Your task to perform on an android device: toggle notification dots Image 0: 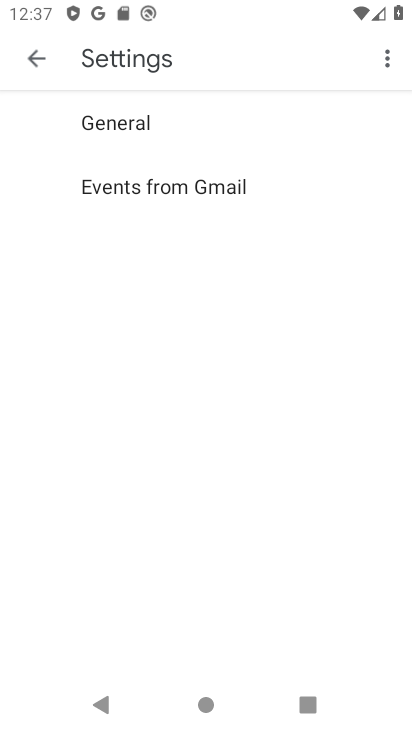
Step 0: press back button
Your task to perform on an android device: toggle notification dots Image 1: 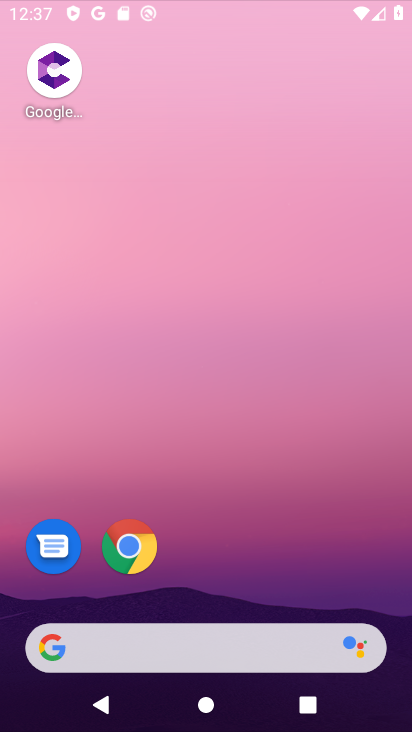
Step 1: click (26, 59)
Your task to perform on an android device: toggle notification dots Image 2: 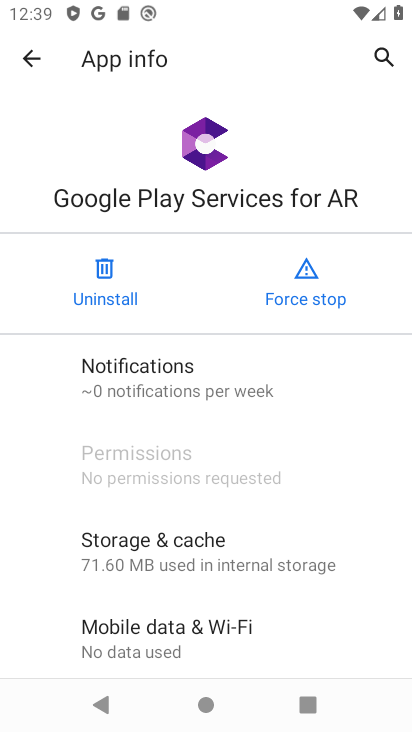
Step 2: click (25, 53)
Your task to perform on an android device: toggle notification dots Image 3: 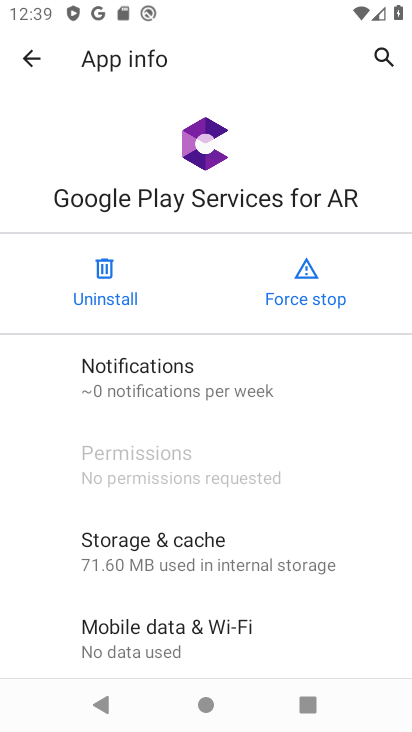
Step 3: click (26, 52)
Your task to perform on an android device: toggle notification dots Image 4: 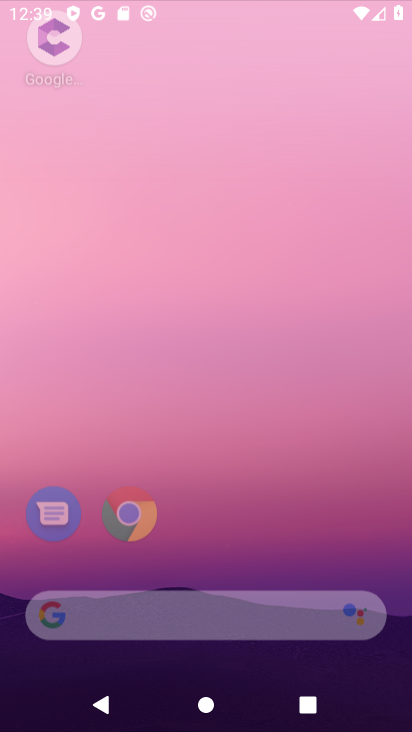
Step 4: click (26, 52)
Your task to perform on an android device: toggle notification dots Image 5: 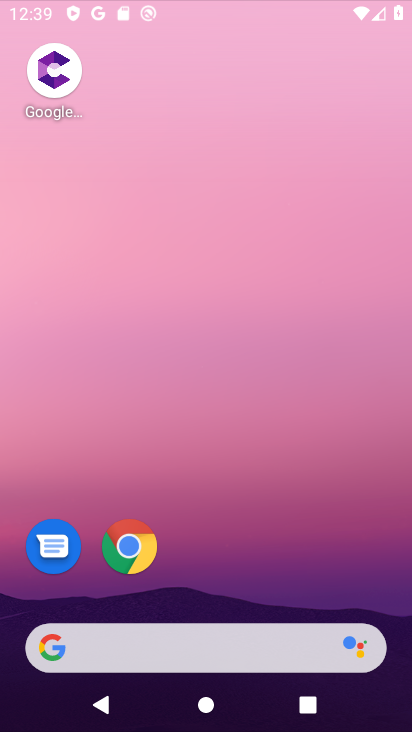
Step 5: click (28, 52)
Your task to perform on an android device: toggle notification dots Image 6: 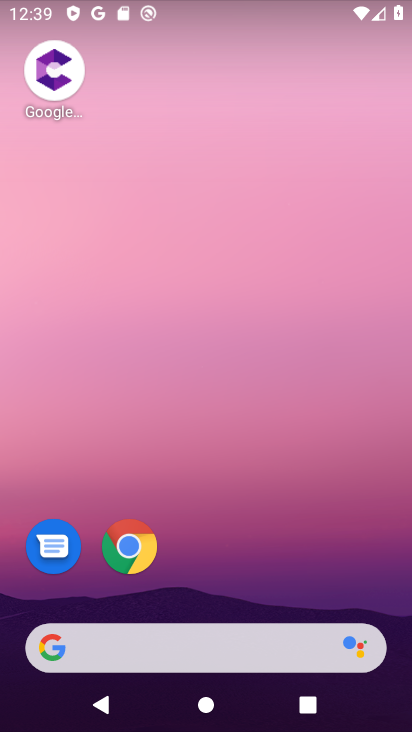
Step 6: drag from (249, 687) to (242, 157)
Your task to perform on an android device: toggle notification dots Image 7: 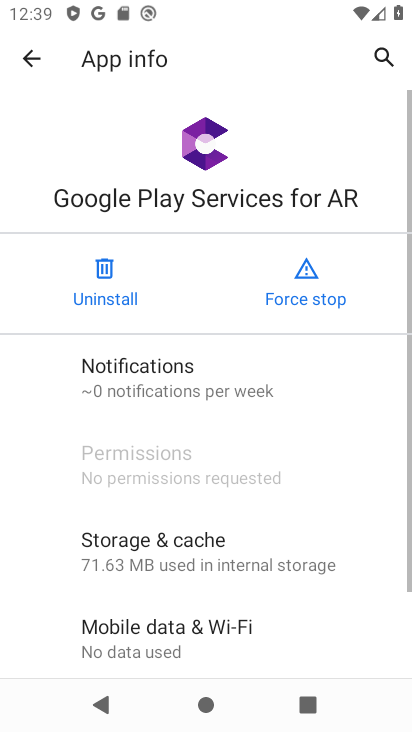
Step 7: drag from (284, 671) to (297, 420)
Your task to perform on an android device: toggle notification dots Image 8: 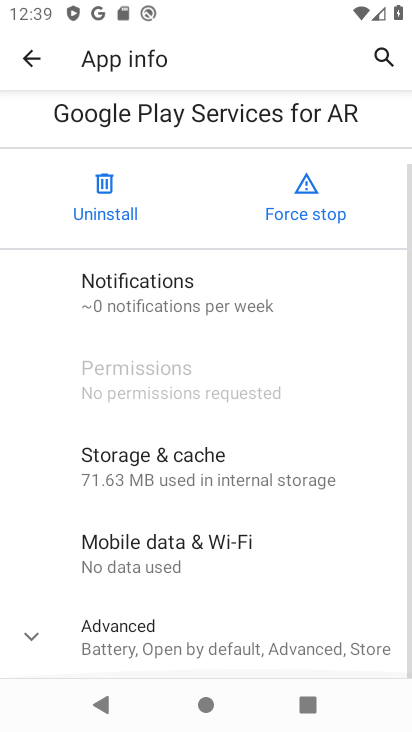
Step 8: press back button
Your task to perform on an android device: toggle notification dots Image 9: 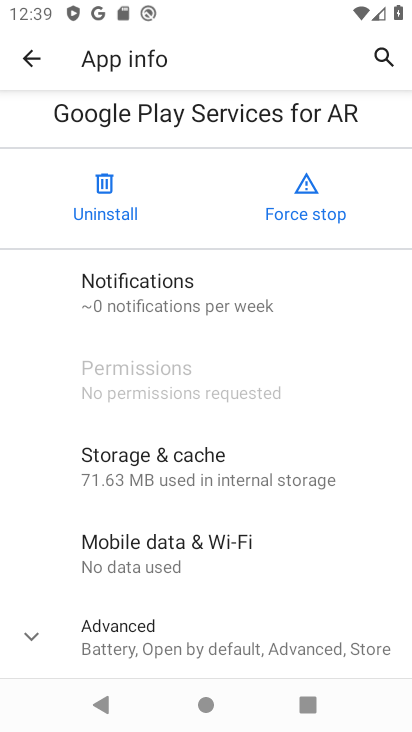
Step 9: press back button
Your task to perform on an android device: toggle notification dots Image 10: 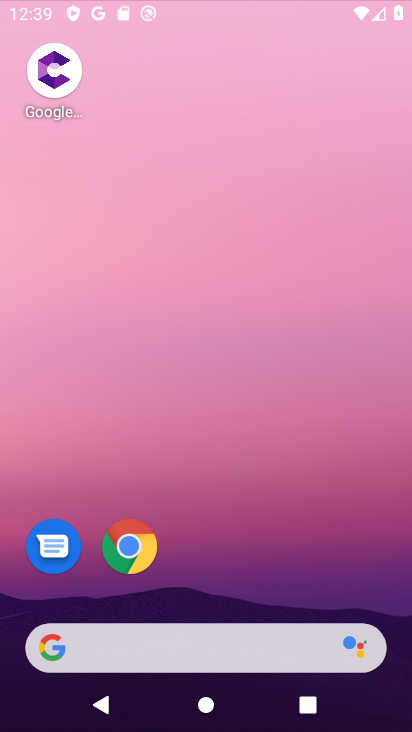
Step 10: press back button
Your task to perform on an android device: toggle notification dots Image 11: 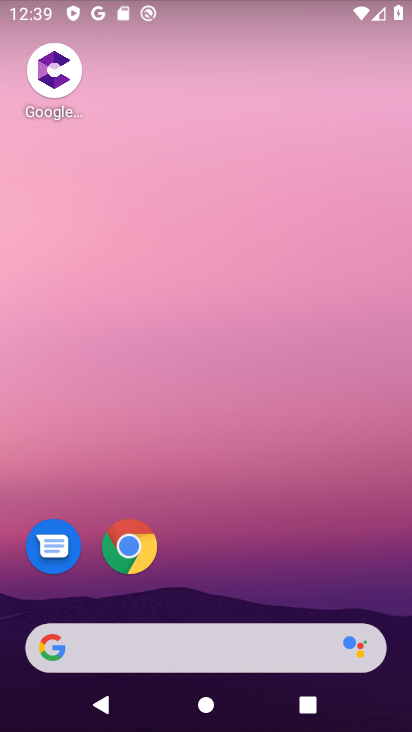
Step 11: press back button
Your task to perform on an android device: toggle notification dots Image 12: 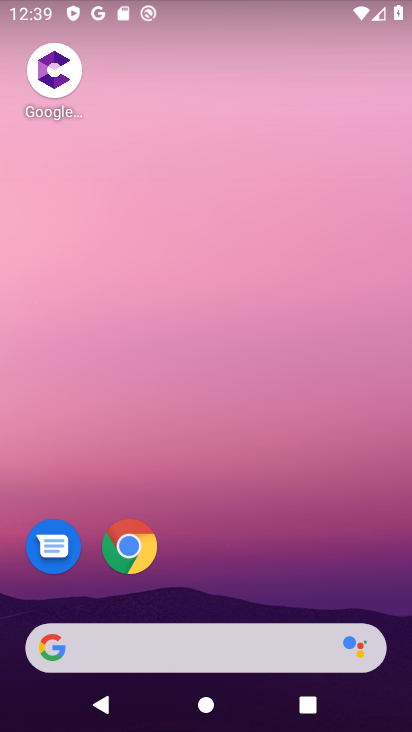
Step 12: drag from (260, 684) to (212, 155)
Your task to perform on an android device: toggle notification dots Image 13: 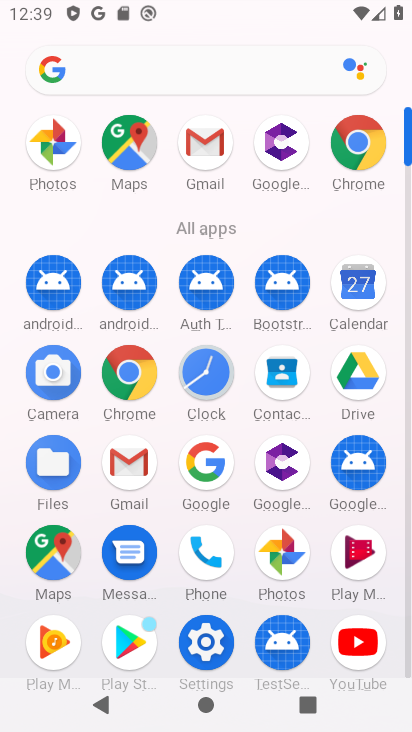
Step 13: click (210, 638)
Your task to perform on an android device: toggle notification dots Image 14: 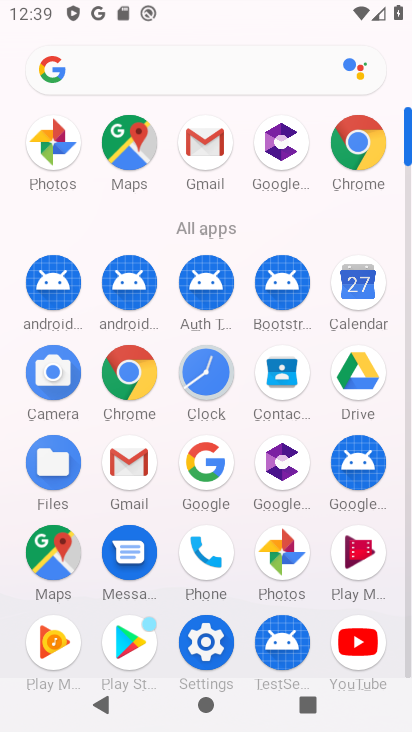
Step 14: click (210, 638)
Your task to perform on an android device: toggle notification dots Image 15: 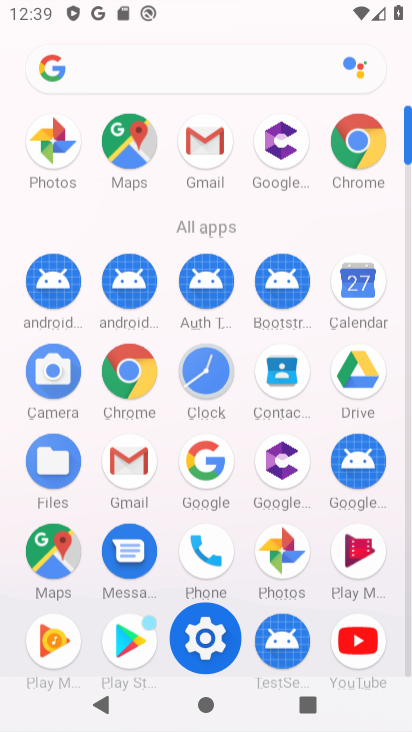
Step 15: click (214, 644)
Your task to perform on an android device: toggle notification dots Image 16: 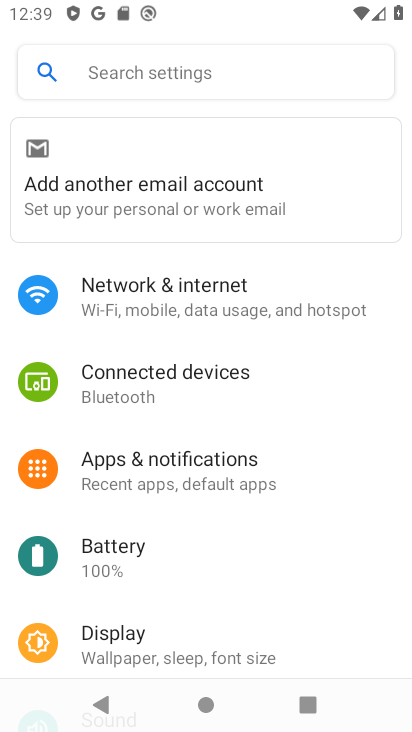
Step 16: click (152, 477)
Your task to perform on an android device: toggle notification dots Image 17: 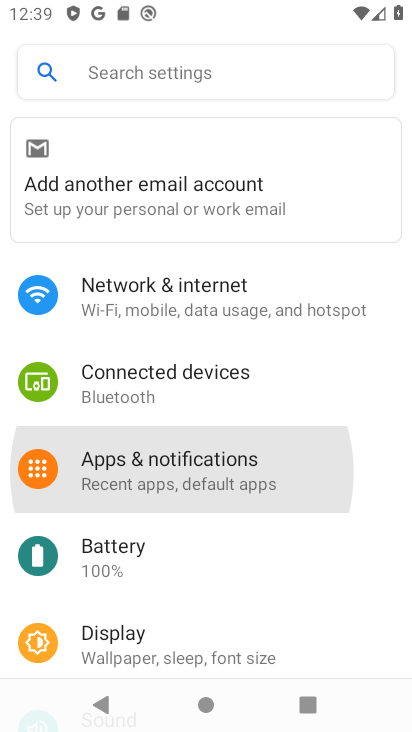
Step 17: click (152, 477)
Your task to perform on an android device: toggle notification dots Image 18: 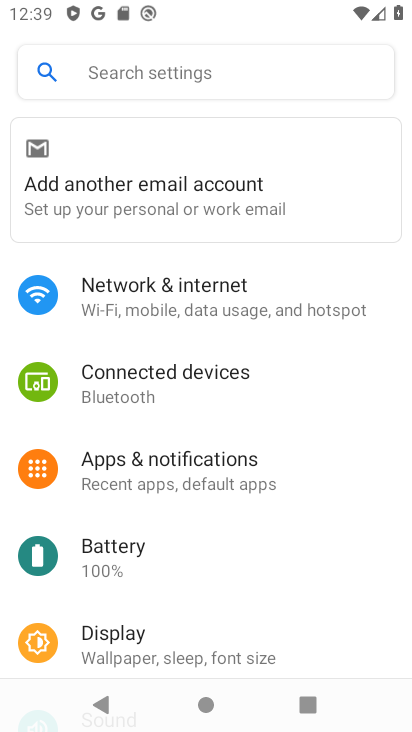
Step 18: click (156, 478)
Your task to perform on an android device: toggle notification dots Image 19: 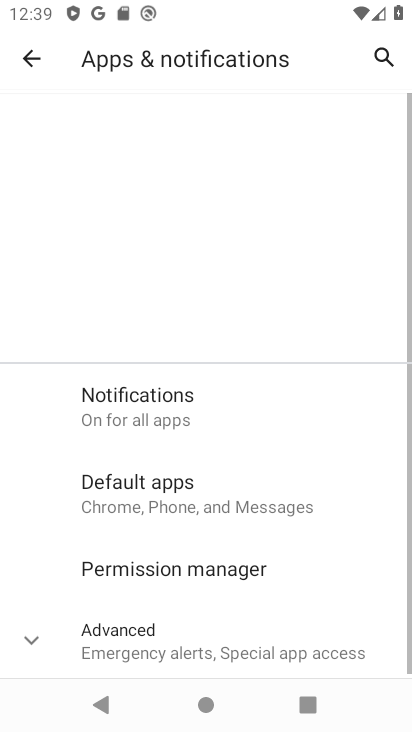
Step 19: click (168, 463)
Your task to perform on an android device: toggle notification dots Image 20: 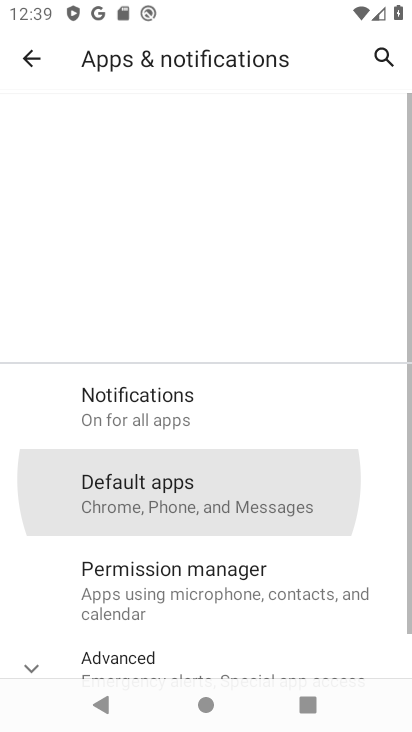
Step 20: click (168, 463)
Your task to perform on an android device: toggle notification dots Image 21: 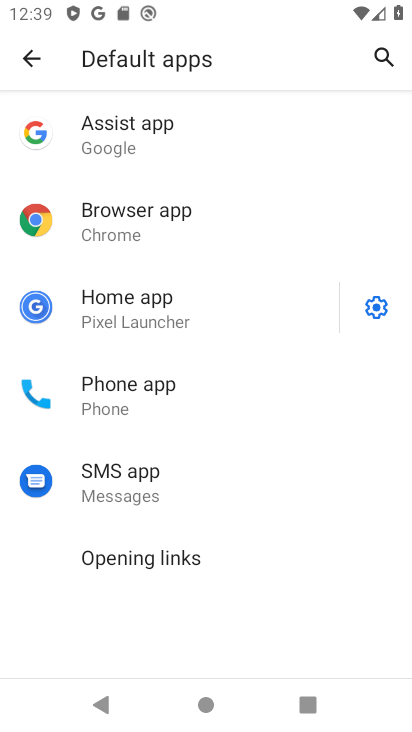
Step 21: click (93, 397)
Your task to perform on an android device: toggle notification dots Image 22: 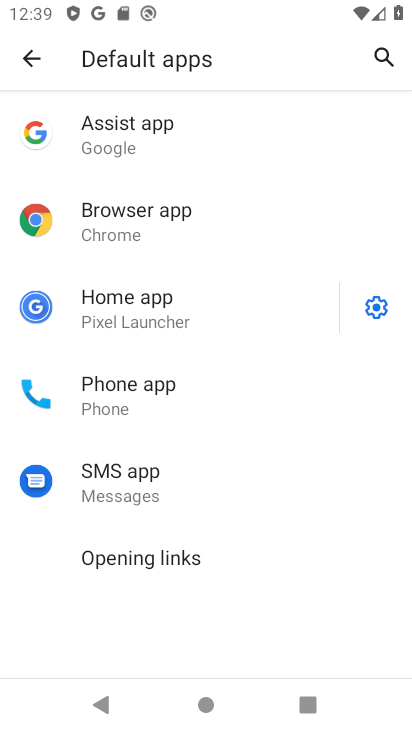
Step 22: click (104, 401)
Your task to perform on an android device: toggle notification dots Image 23: 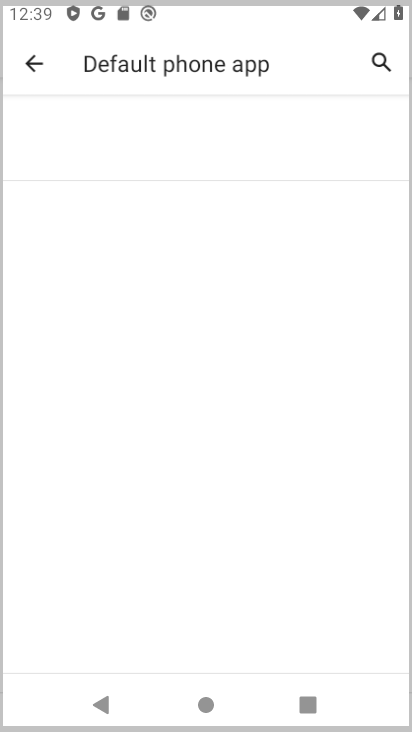
Step 23: click (129, 411)
Your task to perform on an android device: toggle notification dots Image 24: 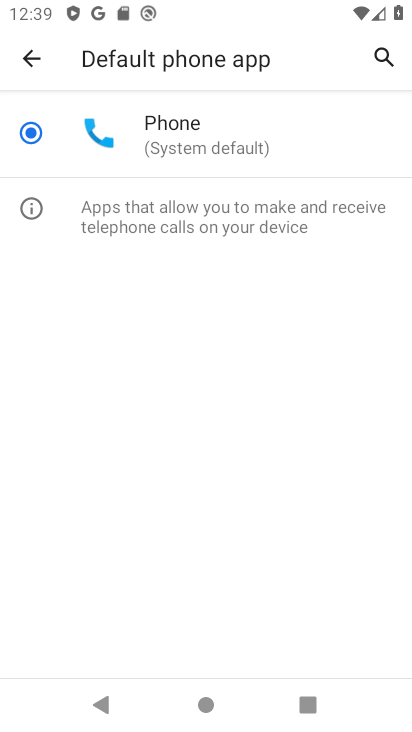
Step 24: click (19, 51)
Your task to perform on an android device: toggle notification dots Image 25: 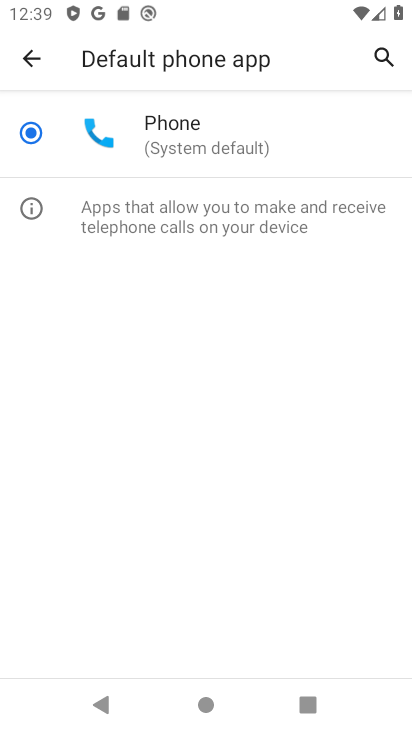
Step 25: click (27, 58)
Your task to perform on an android device: toggle notification dots Image 26: 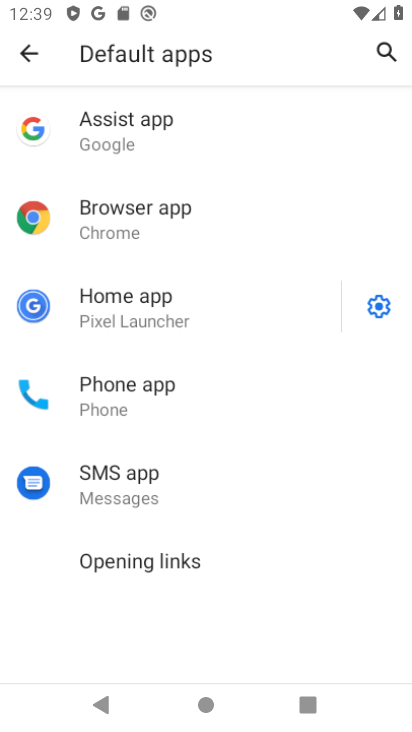
Step 26: click (28, 58)
Your task to perform on an android device: toggle notification dots Image 27: 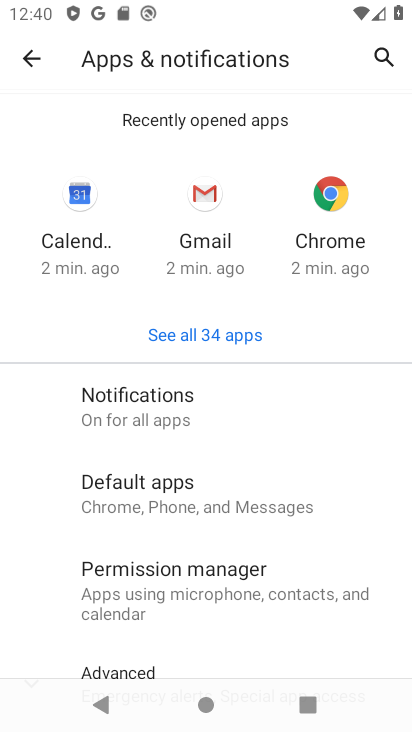
Step 27: drag from (160, 448) to (128, 200)
Your task to perform on an android device: toggle notification dots Image 28: 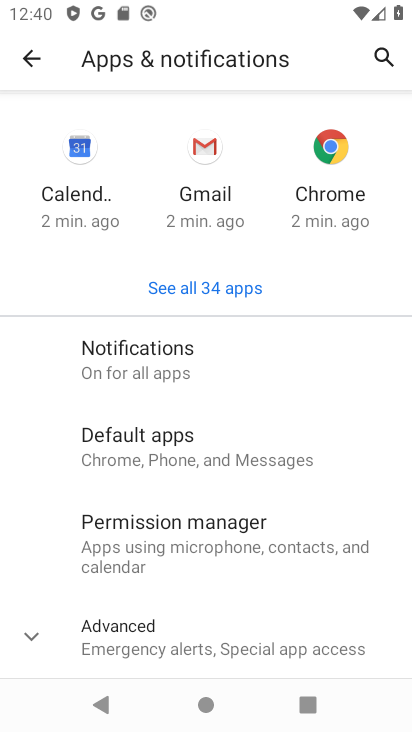
Step 28: click (115, 364)
Your task to perform on an android device: toggle notification dots Image 29: 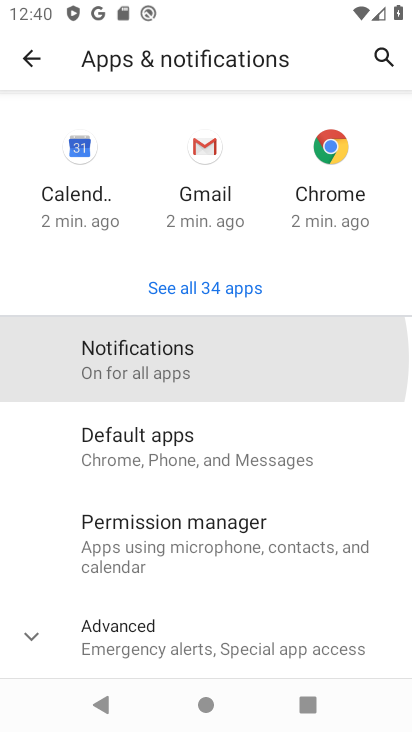
Step 29: click (115, 364)
Your task to perform on an android device: toggle notification dots Image 30: 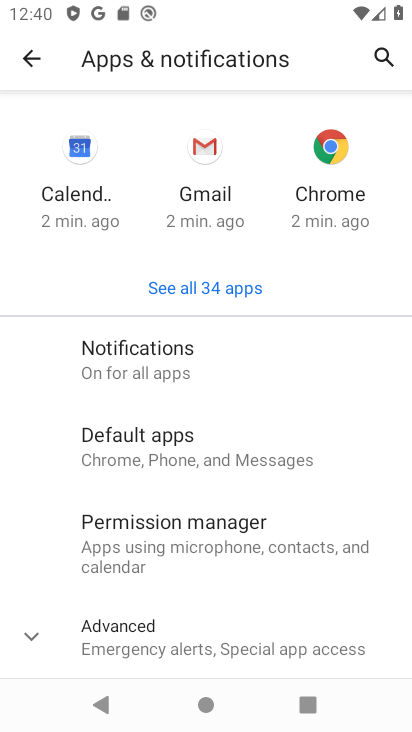
Step 30: click (116, 364)
Your task to perform on an android device: toggle notification dots Image 31: 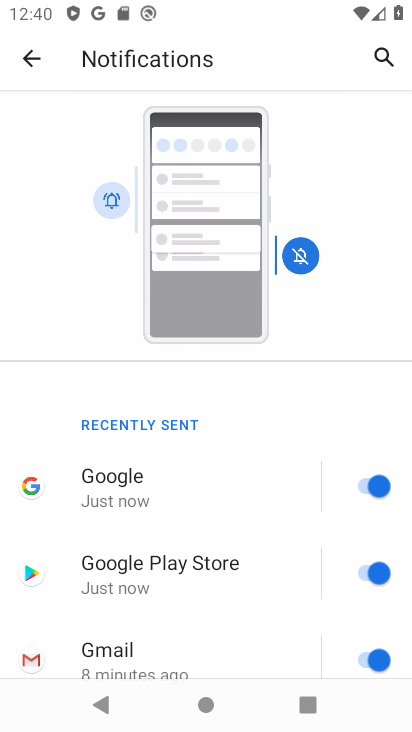
Step 31: click (160, 301)
Your task to perform on an android device: toggle notification dots Image 32: 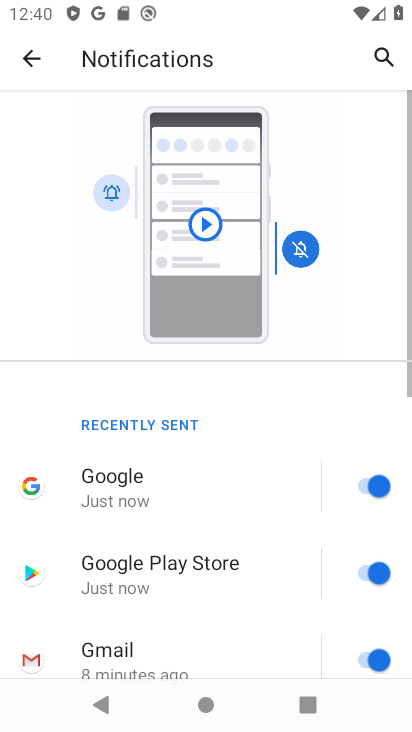
Step 32: click (161, 138)
Your task to perform on an android device: toggle notification dots Image 33: 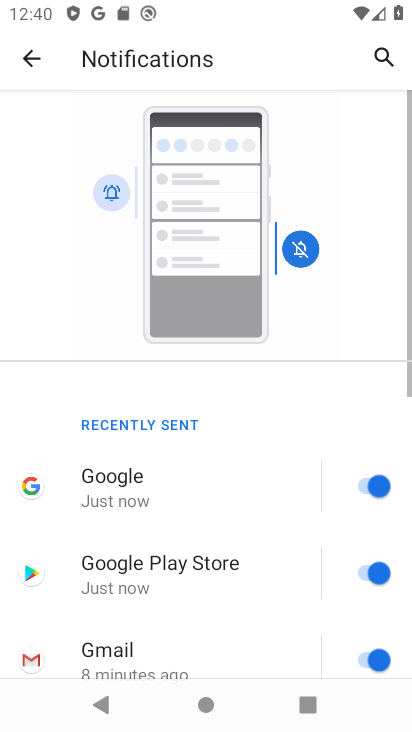
Step 33: drag from (161, 374) to (161, 286)
Your task to perform on an android device: toggle notification dots Image 34: 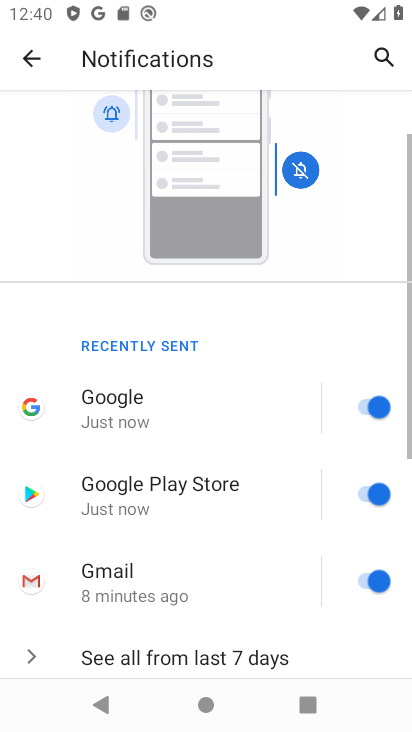
Step 34: click (139, 127)
Your task to perform on an android device: toggle notification dots Image 35: 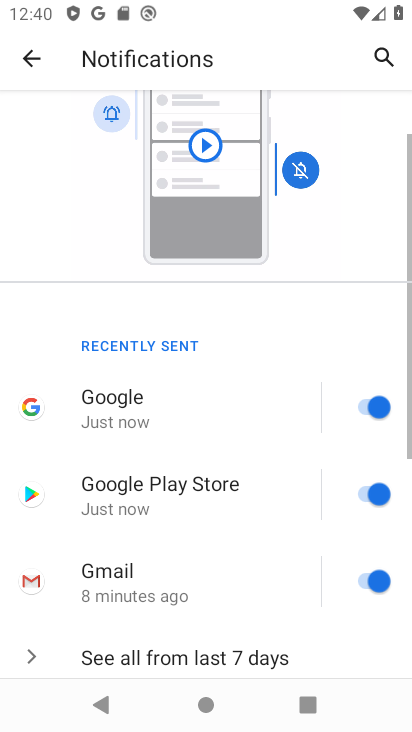
Step 35: drag from (142, 357) to (142, 86)
Your task to perform on an android device: toggle notification dots Image 36: 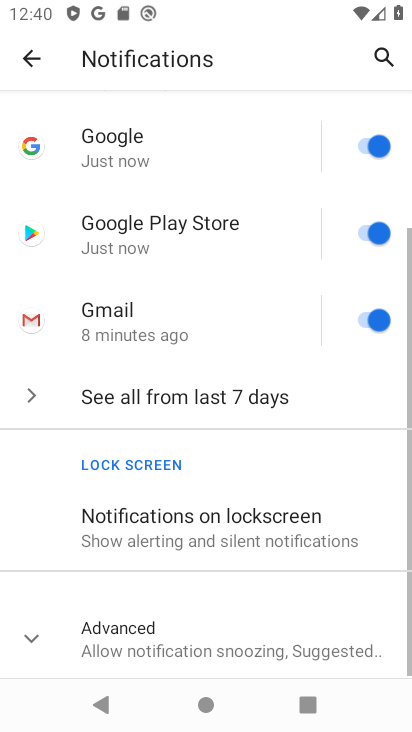
Step 36: drag from (120, 376) to (157, 82)
Your task to perform on an android device: toggle notification dots Image 37: 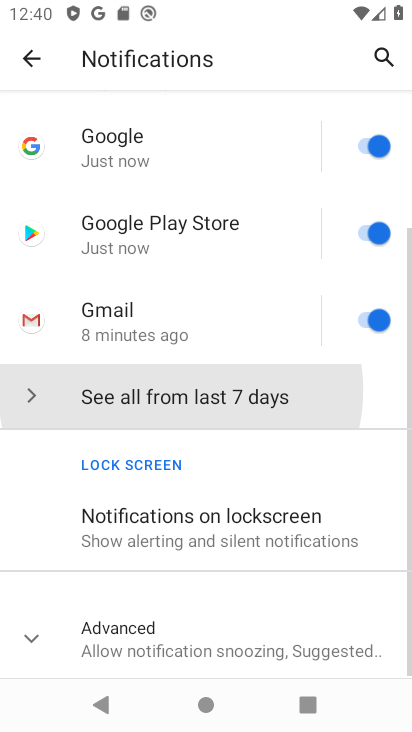
Step 37: drag from (158, 578) to (131, 244)
Your task to perform on an android device: toggle notification dots Image 38: 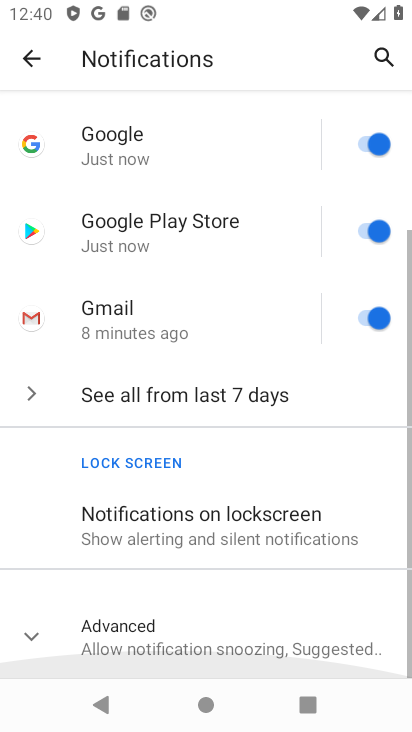
Step 38: drag from (179, 567) to (170, 423)
Your task to perform on an android device: toggle notification dots Image 39: 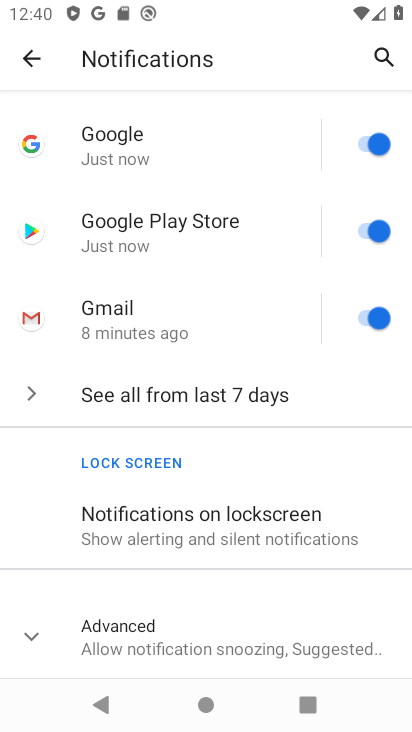
Step 39: drag from (182, 586) to (140, 247)
Your task to perform on an android device: toggle notification dots Image 40: 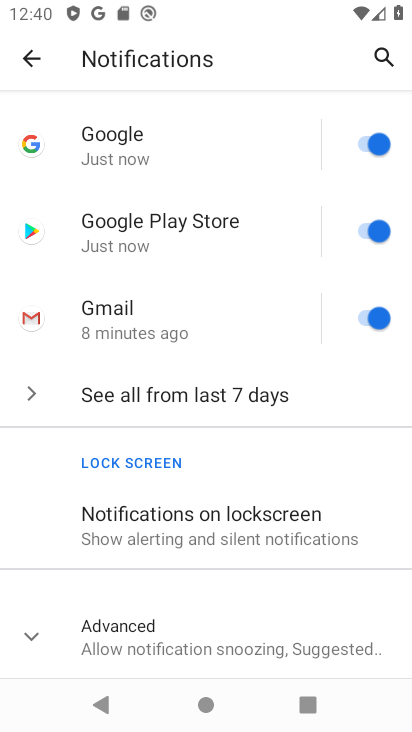
Step 40: click (123, 631)
Your task to perform on an android device: toggle notification dots Image 41: 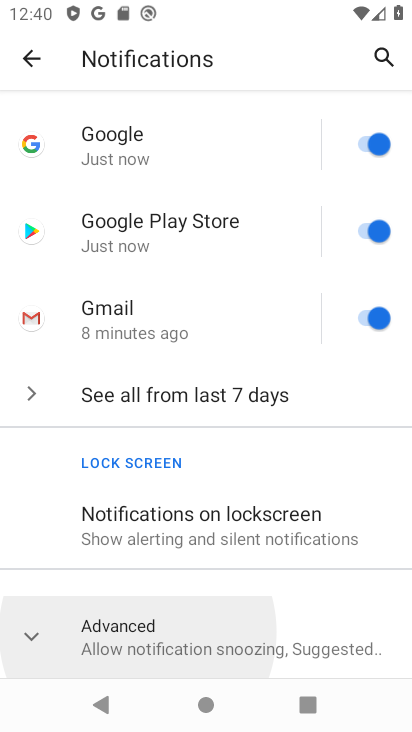
Step 41: click (123, 631)
Your task to perform on an android device: toggle notification dots Image 42: 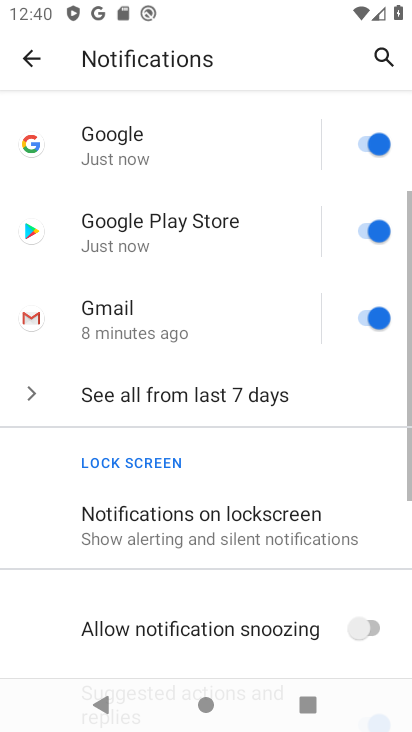
Step 42: click (121, 625)
Your task to perform on an android device: toggle notification dots Image 43: 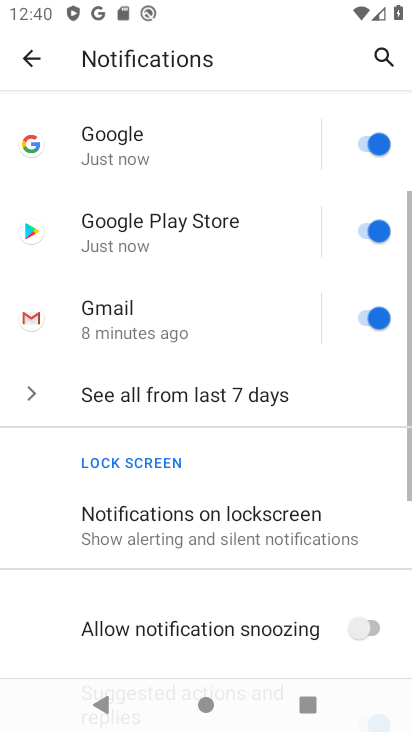
Step 43: click (122, 624)
Your task to perform on an android device: toggle notification dots Image 44: 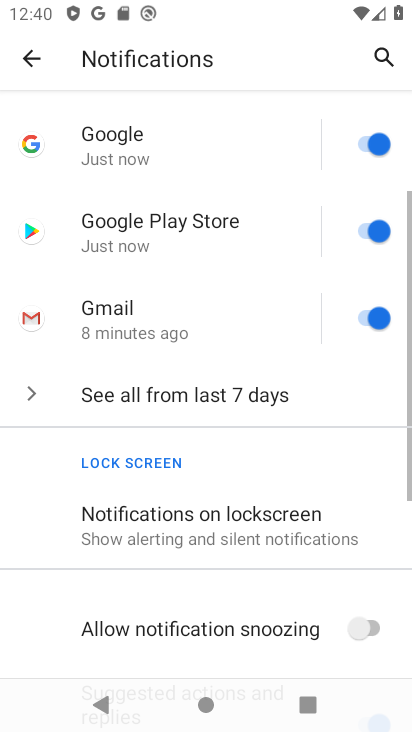
Step 44: drag from (235, 587) to (184, 308)
Your task to perform on an android device: toggle notification dots Image 45: 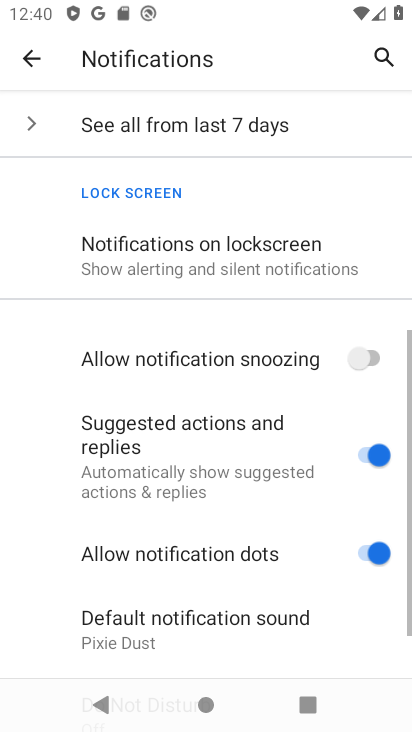
Step 45: drag from (195, 513) to (179, 202)
Your task to perform on an android device: toggle notification dots Image 46: 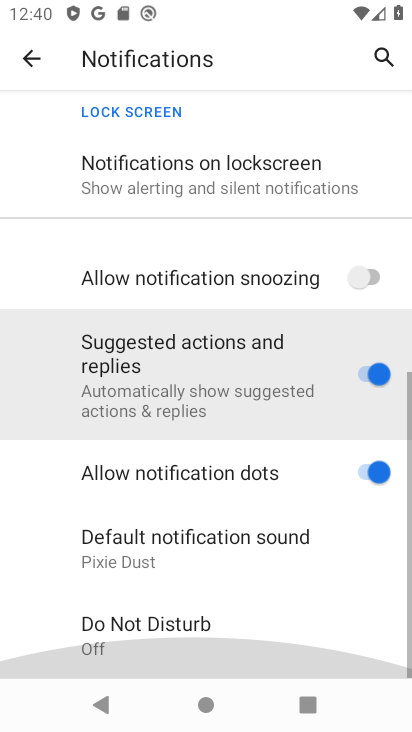
Step 46: drag from (186, 474) to (175, 173)
Your task to perform on an android device: toggle notification dots Image 47: 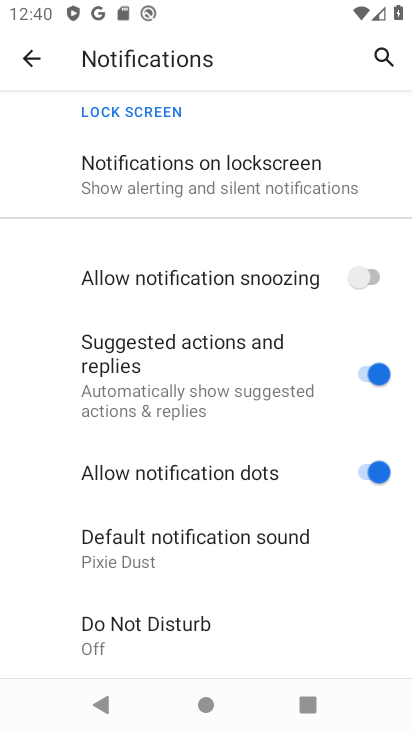
Step 47: click (372, 476)
Your task to perform on an android device: toggle notification dots Image 48: 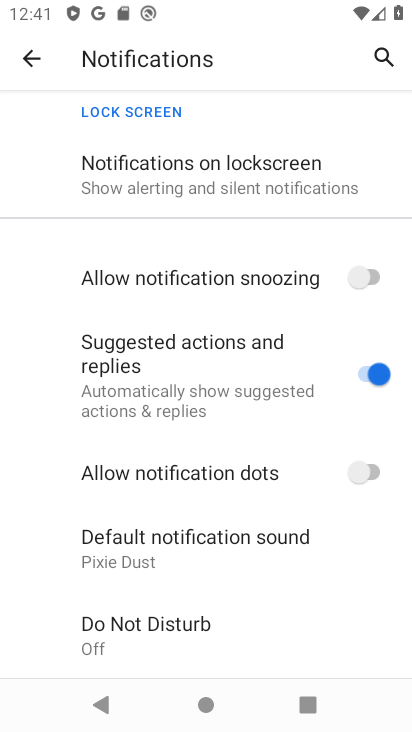
Step 48: task complete